Your task to perform on an android device: Open calendar and show me the first week of next month Image 0: 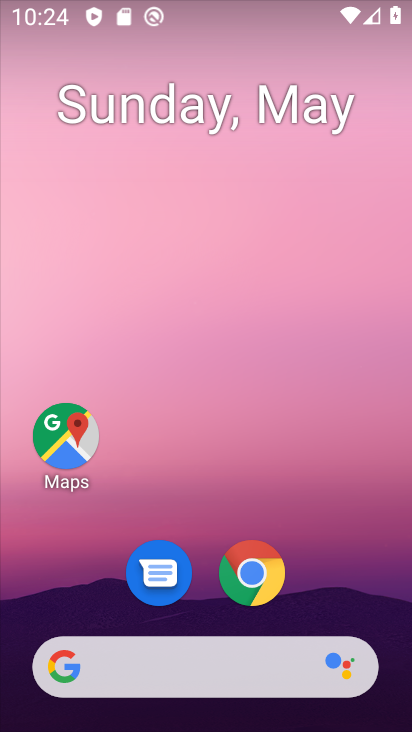
Step 0: drag from (344, 548) to (315, 85)
Your task to perform on an android device: Open calendar and show me the first week of next month Image 1: 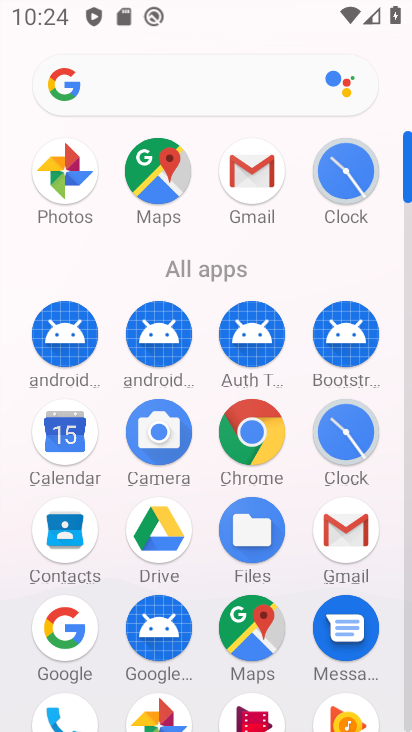
Step 1: click (53, 431)
Your task to perform on an android device: Open calendar and show me the first week of next month Image 2: 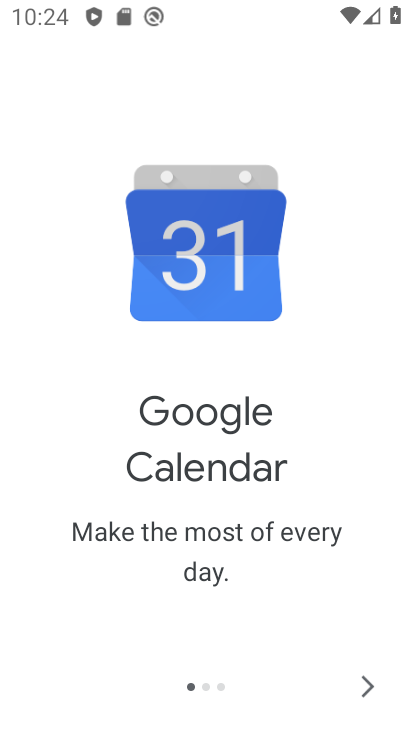
Step 2: click (370, 684)
Your task to perform on an android device: Open calendar and show me the first week of next month Image 3: 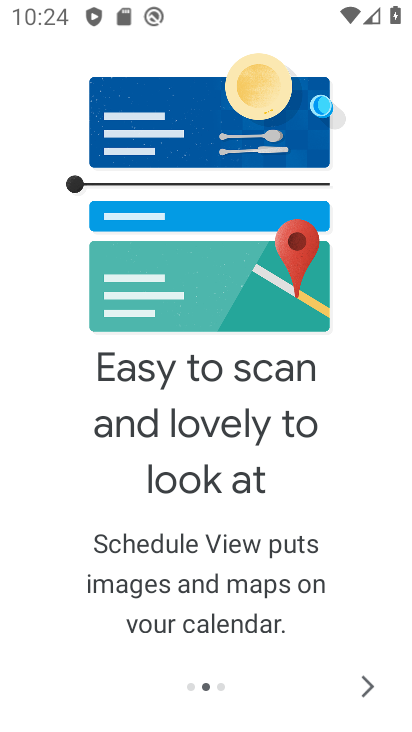
Step 3: click (372, 684)
Your task to perform on an android device: Open calendar and show me the first week of next month Image 4: 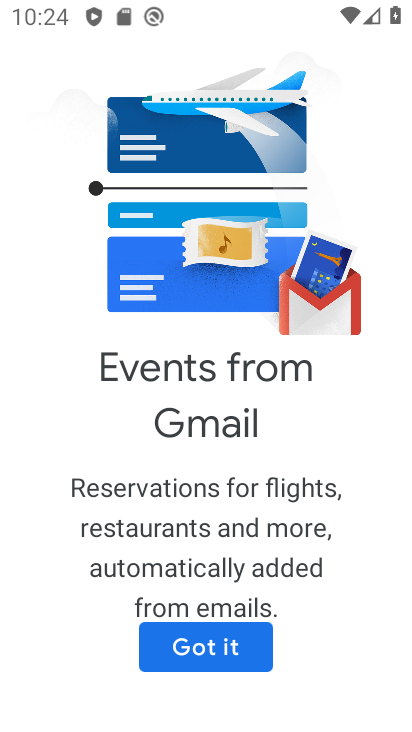
Step 4: click (262, 642)
Your task to perform on an android device: Open calendar and show me the first week of next month Image 5: 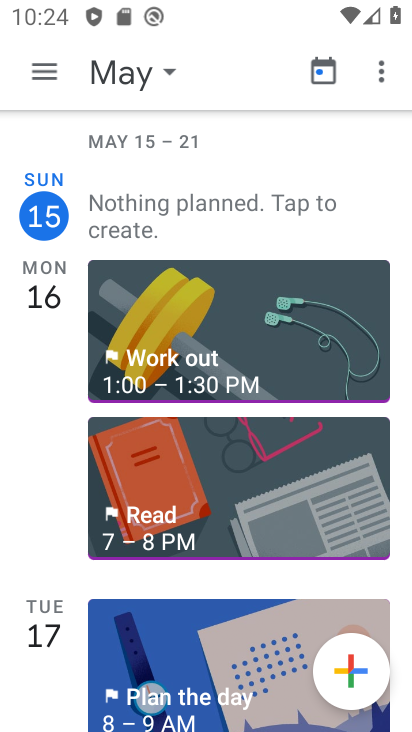
Step 5: click (47, 62)
Your task to perform on an android device: Open calendar and show me the first week of next month Image 6: 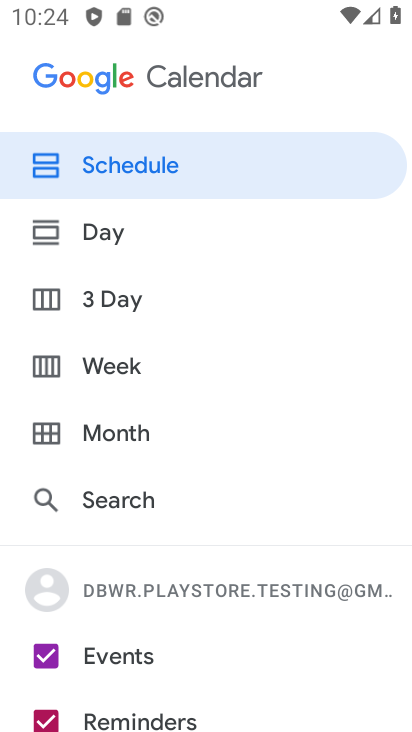
Step 6: click (63, 429)
Your task to perform on an android device: Open calendar and show me the first week of next month Image 7: 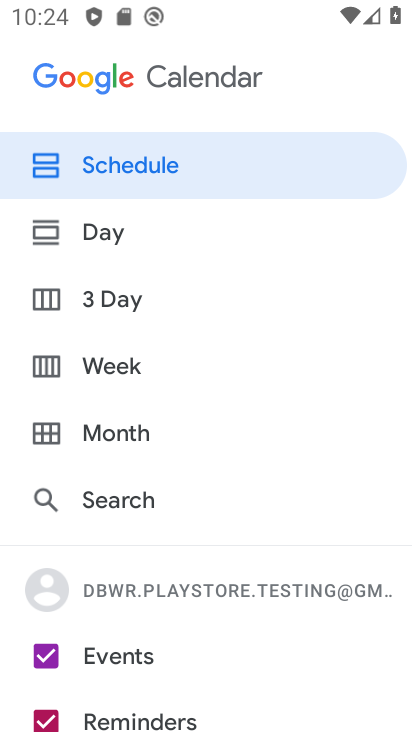
Step 7: click (56, 432)
Your task to perform on an android device: Open calendar and show me the first week of next month Image 8: 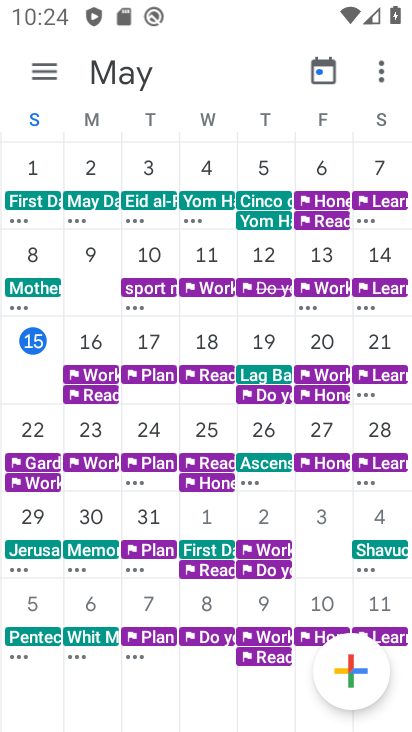
Step 8: drag from (392, 414) to (1, 342)
Your task to perform on an android device: Open calendar and show me the first week of next month Image 9: 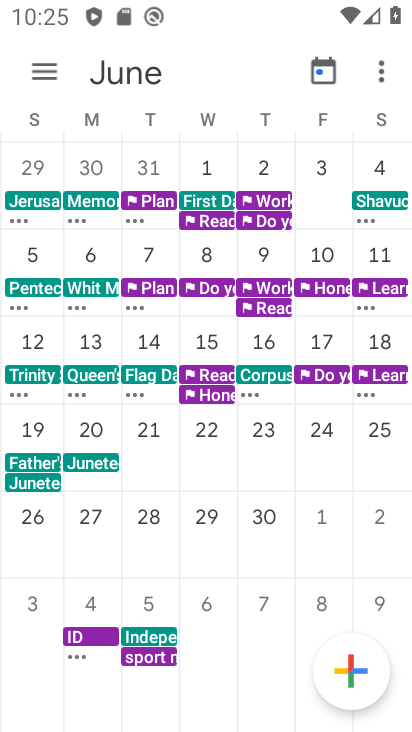
Step 9: click (33, 246)
Your task to perform on an android device: Open calendar and show me the first week of next month Image 10: 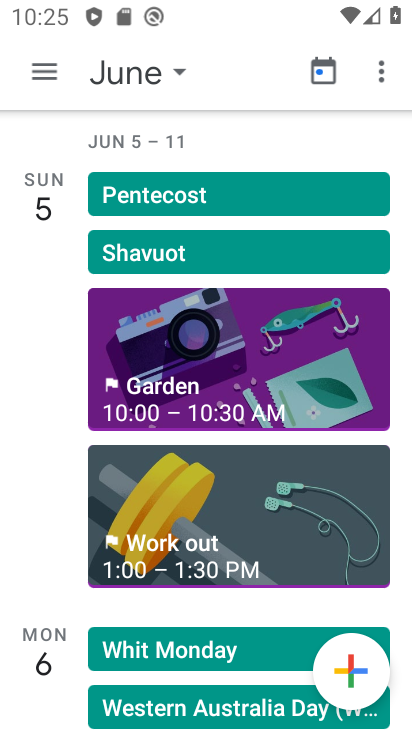
Step 10: click (45, 68)
Your task to perform on an android device: Open calendar and show me the first week of next month Image 11: 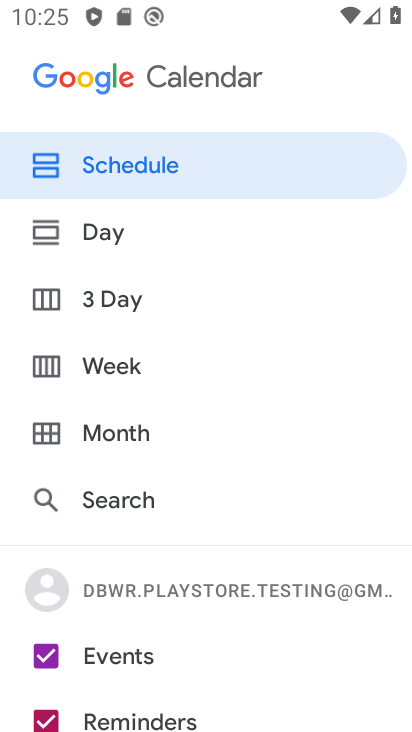
Step 11: click (51, 363)
Your task to perform on an android device: Open calendar and show me the first week of next month Image 12: 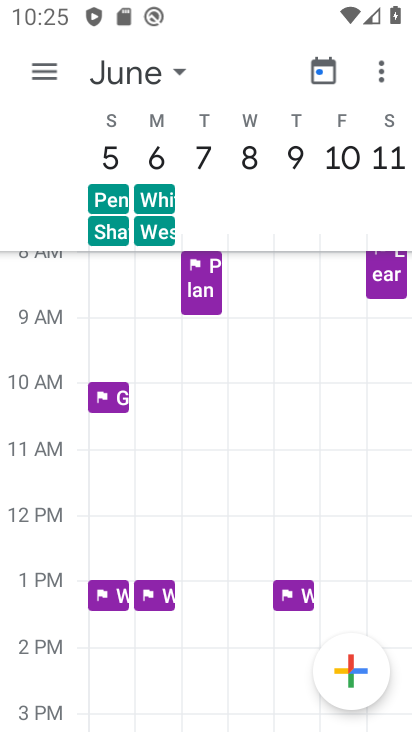
Step 12: task complete